Your task to perform on an android device: toggle sleep mode Image 0: 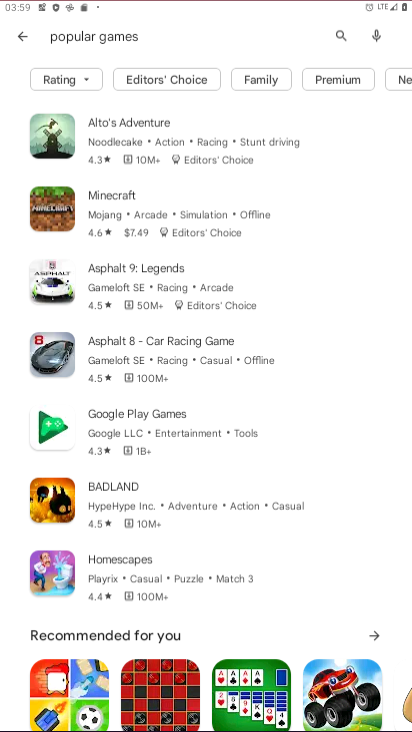
Step 0: press home button
Your task to perform on an android device: toggle sleep mode Image 1: 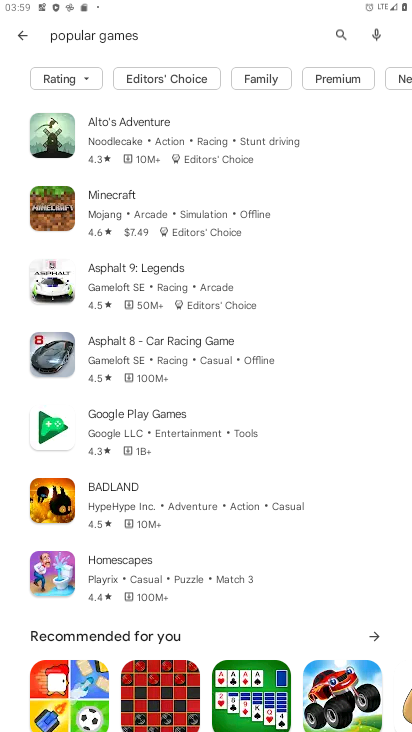
Step 1: press home button
Your task to perform on an android device: toggle sleep mode Image 2: 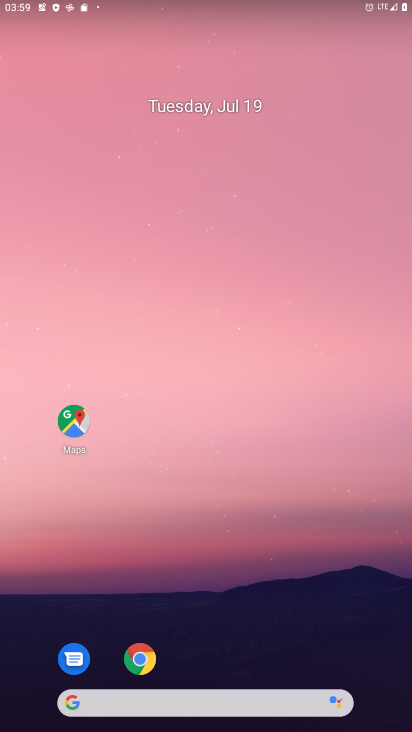
Step 2: drag from (268, 544) to (363, 25)
Your task to perform on an android device: toggle sleep mode Image 3: 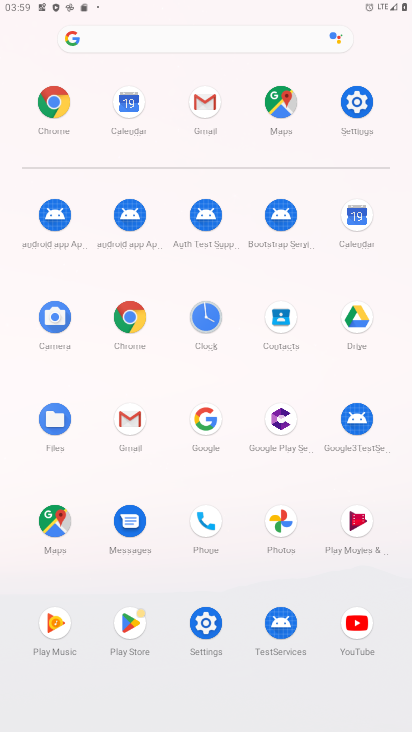
Step 3: click (208, 614)
Your task to perform on an android device: toggle sleep mode Image 4: 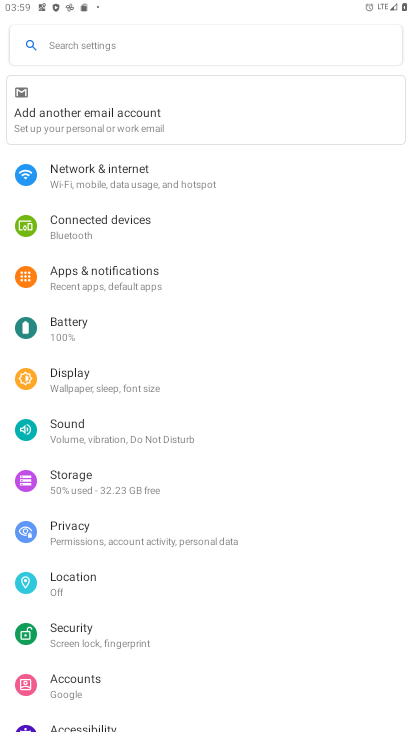
Step 4: click (30, 369)
Your task to perform on an android device: toggle sleep mode Image 5: 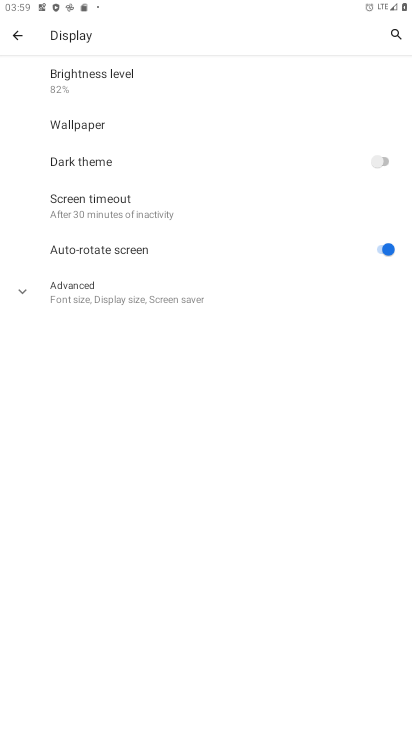
Step 5: task complete